Your task to perform on an android device: turn smart compose on in the gmail app Image 0: 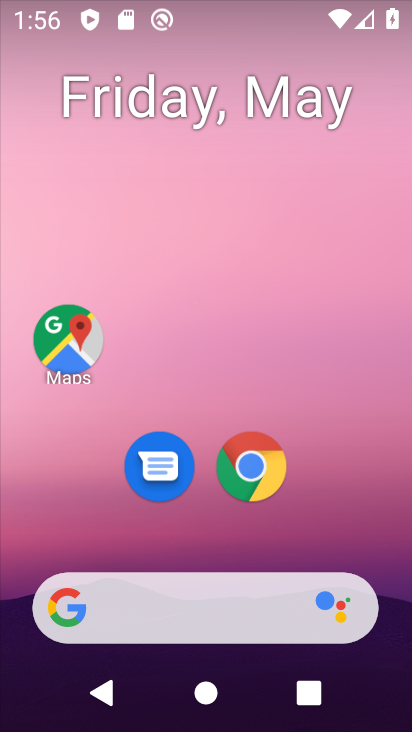
Step 0: drag from (311, 518) to (327, 117)
Your task to perform on an android device: turn smart compose on in the gmail app Image 1: 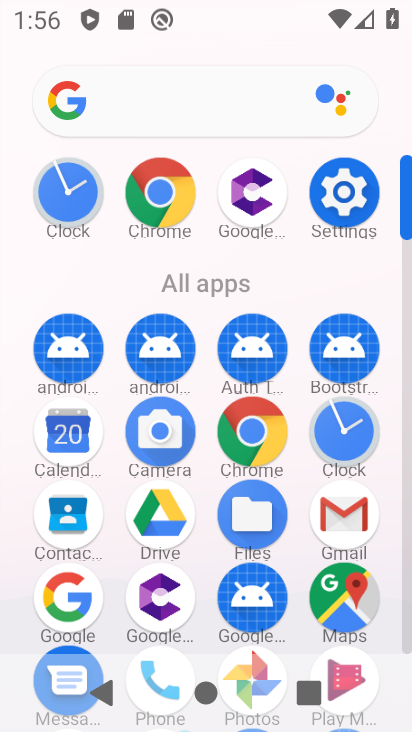
Step 1: click (345, 507)
Your task to perform on an android device: turn smart compose on in the gmail app Image 2: 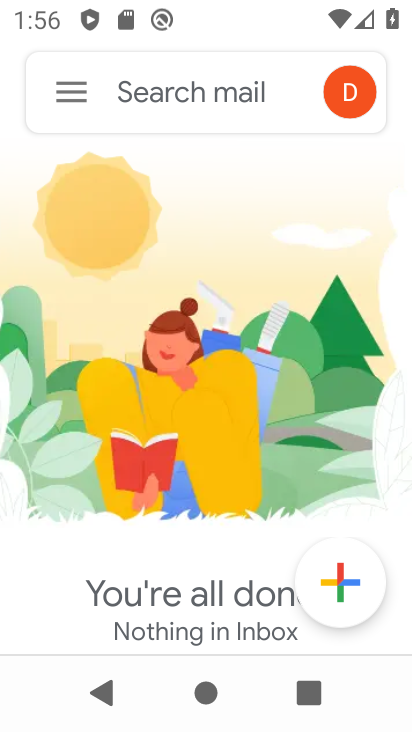
Step 2: click (74, 93)
Your task to perform on an android device: turn smart compose on in the gmail app Image 3: 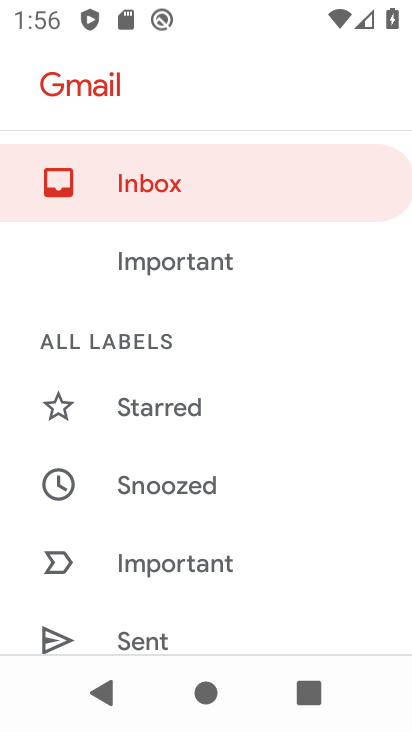
Step 3: drag from (247, 587) to (237, 172)
Your task to perform on an android device: turn smart compose on in the gmail app Image 4: 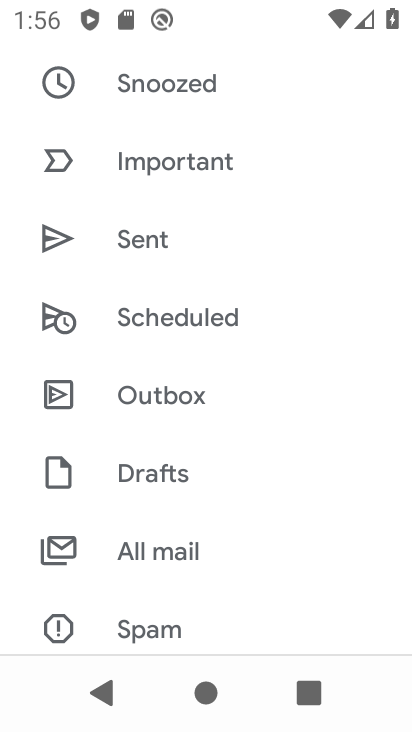
Step 4: drag from (282, 557) to (300, 27)
Your task to perform on an android device: turn smart compose on in the gmail app Image 5: 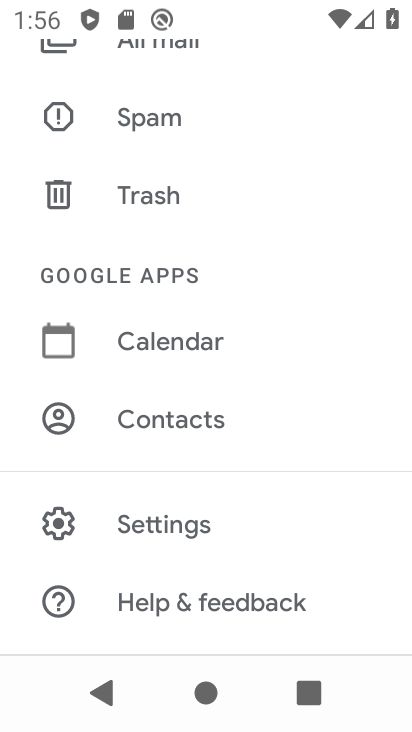
Step 5: click (157, 522)
Your task to perform on an android device: turn smart compose on in the gmail app Image 6: 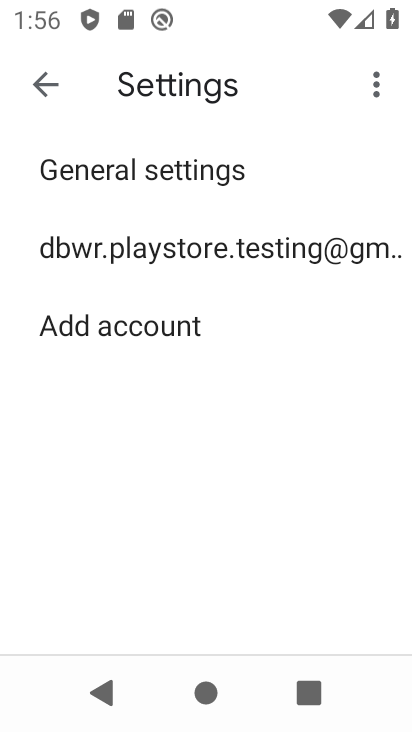
Step 6: click (283, 247)
Your task to perform on an android device: turn smart compose on in the gmail app Image 7: 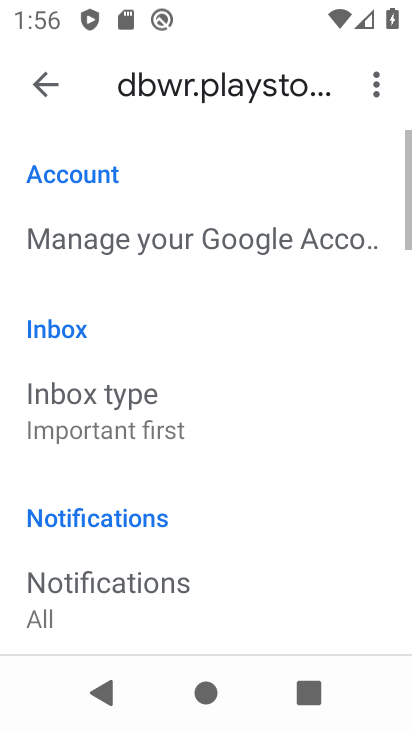
Step 7: task complete